Your task to perform on an android device: toggle priority inbox in the gmail app Image 0: 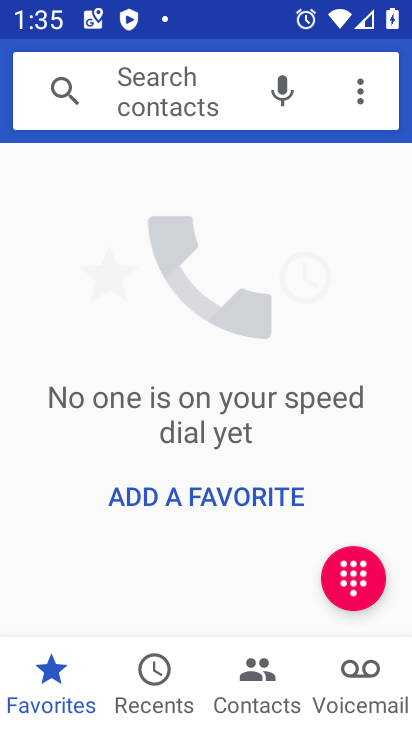
Step 0: press home button
Your task to perform on an android device: toggle priority inbox in the gmail app Image 1: 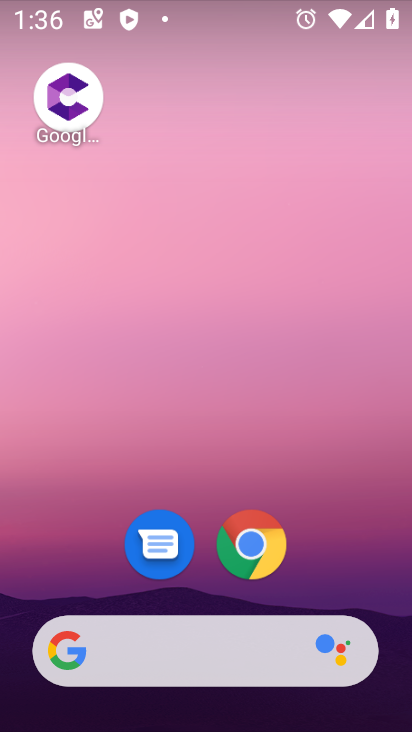
Step 1: drag from (385, 630) to (290, 116)
Your task to perform on an android device: toggle priority inbox in the gmail app Image 2: 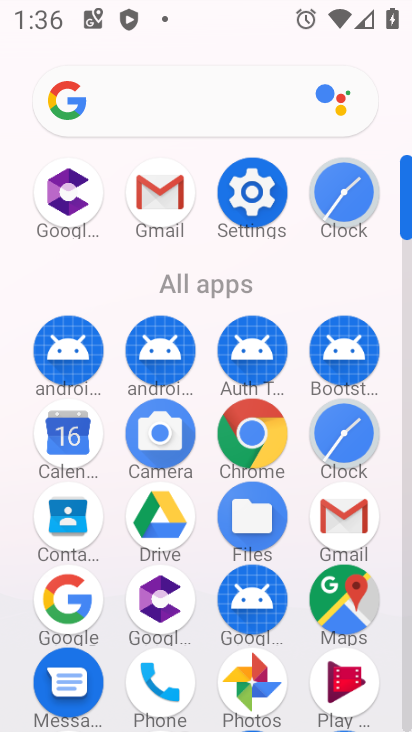
Step 2: click (408, 704)
Your task to perform on an android device: toggle priority inbox in the gmail app Image 3: 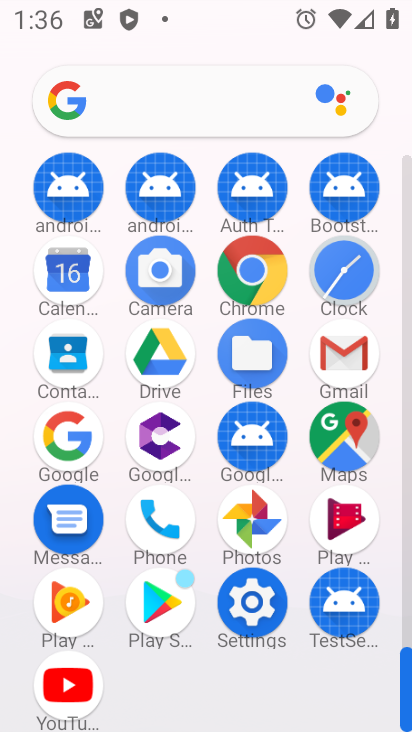
Step 3: click (343, 356)
Your task to perform on an android device: toggle priority inbox in the gmail app Image 4: 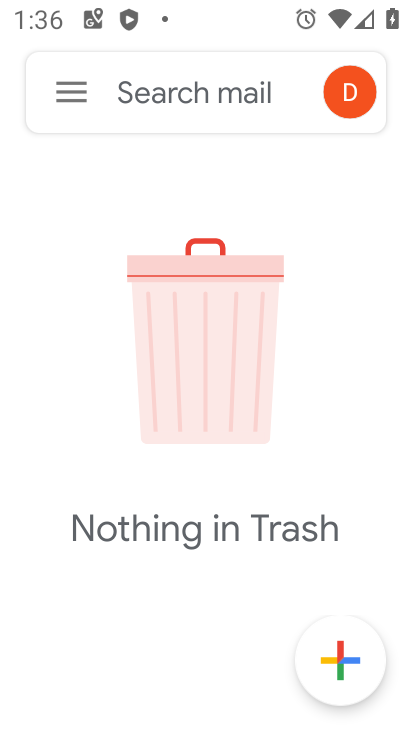
Step 4: click (72, 89)
Your task to perform on an android device: toggle priority inbox in the gmail app Image 5: 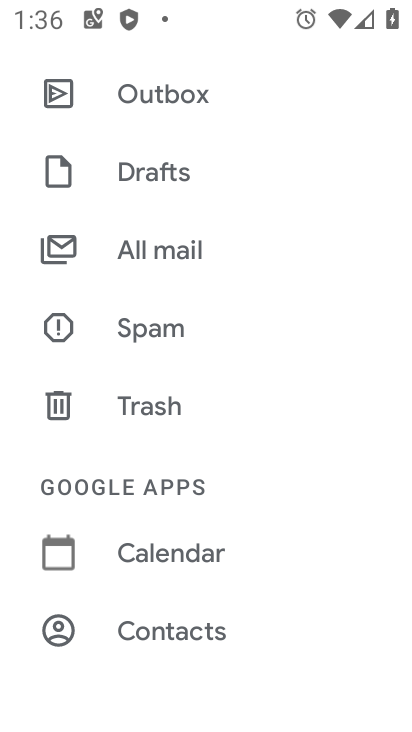
Step 5: drag from (254, 630) to (317, 120)
Your task to perform on an android device: toggle priority inbox in the gmail app Image 6: 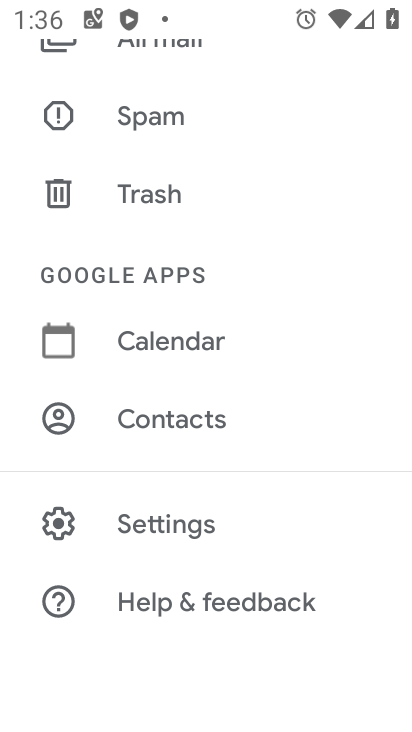
Step 6: click (142, 520)
Your task to perform on an android device: toggle priority inbox in the gmail app Image 7: 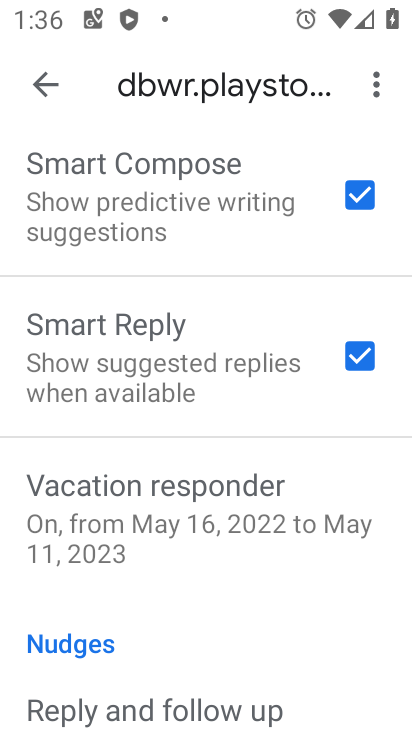
Step 7: drag from (317, 218) to (266, 563)
Your task to perform on an android device: toggle priority inbox in the gmail app Image 8: 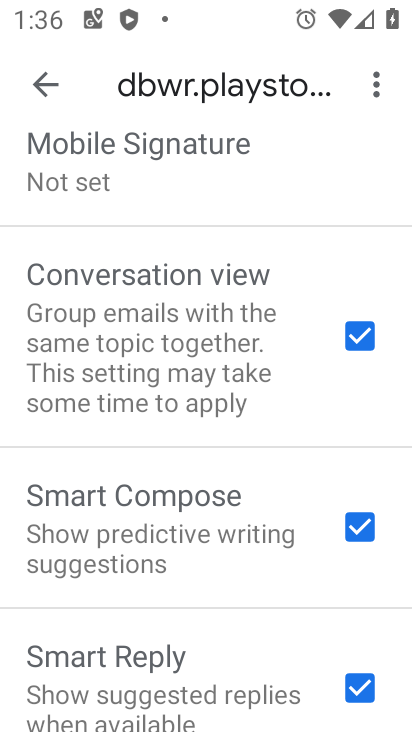
Step 8: drag from (268, 201) to (234, 536)
Your task to perform on an android device: toggle priority inbox in the gmail app Image 9: 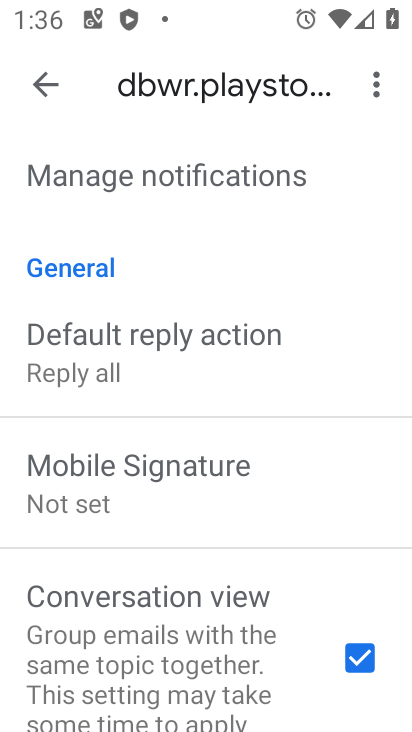
Step 9: drag from (251, 272) to (215, 620)
Your task to perform on an android device: toggle priority inbox in the gmail app Image 10: 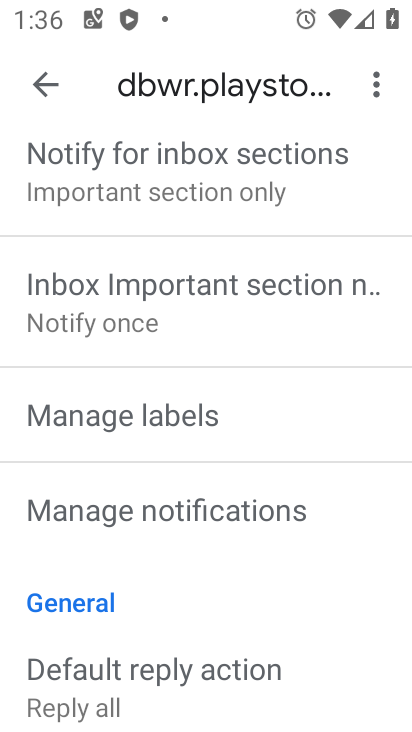
Step 10: drag from (328, 309) to (292, 571)
Your task to perform on an android device: toggle priority inbox in the gmail app Image 11: 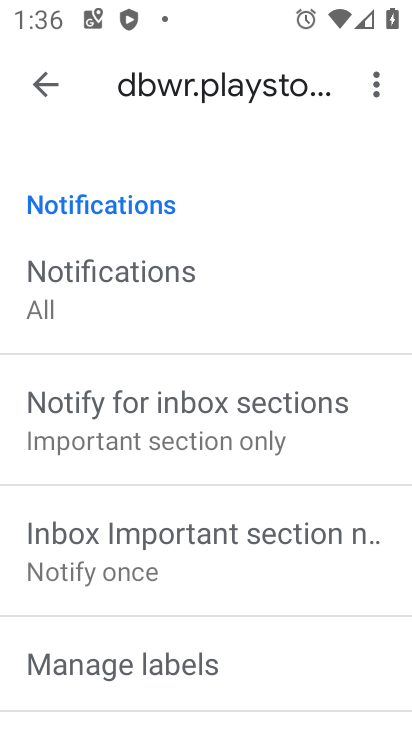
Step 11: drag from (290, 290) to (298, 564)
Your task to perform on an android device: toggle priority inbox in the gmail app Image 12: 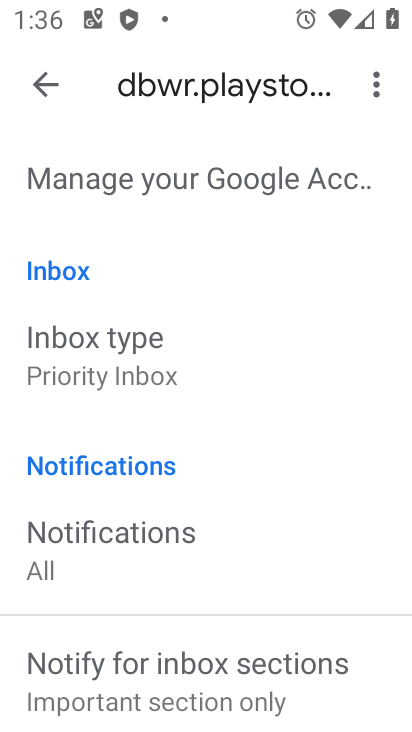
Step 12: click (91, 353)
Your task to perform on an android device: toggle priority inbox in the gmail app Image 13: 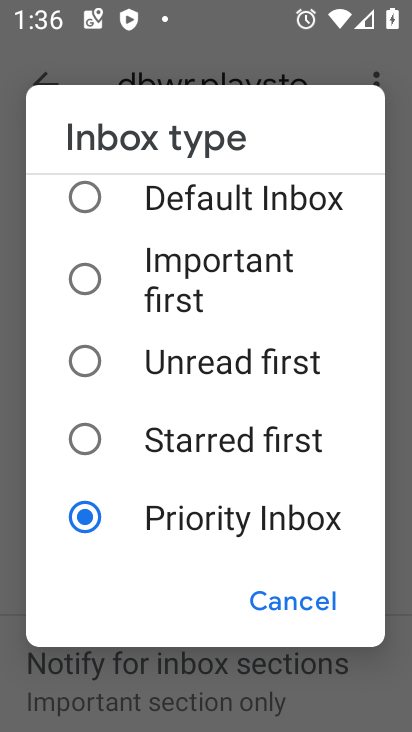
Step 13: click (92, 193)
Your task to perform on an android device: toggle priority inbox in the gmail app Image 14: 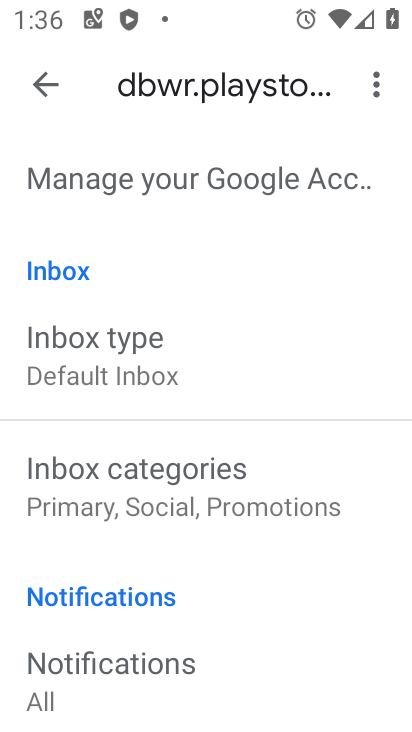
Step 14: task complete